Your task to perform on an android device: Search for hotels in Zurich Image 0: 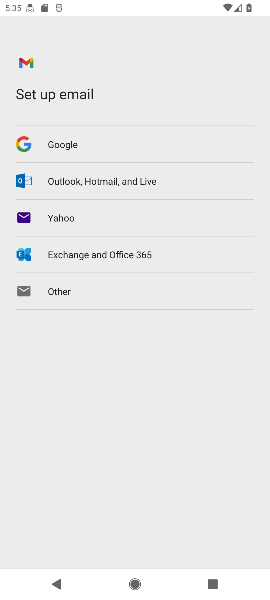
Step 0: press home button
Your task to perform on an android device: Search for hotels in Zurich Image 1: 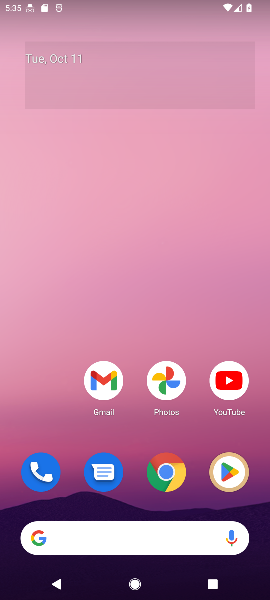
Step 1: click (158, 476)
Your task to perform on an android device: Search for hotels in Zurich Image 2: 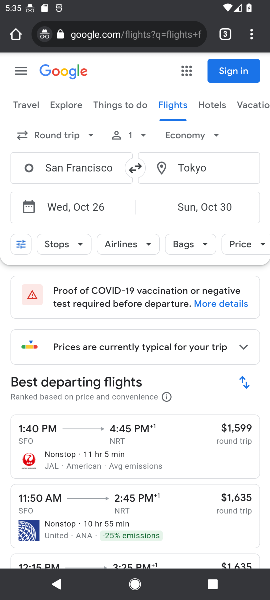
Step 2: click (103, 32)
Your task to perform on an android device: Search for hotels in Zurich Image 3: 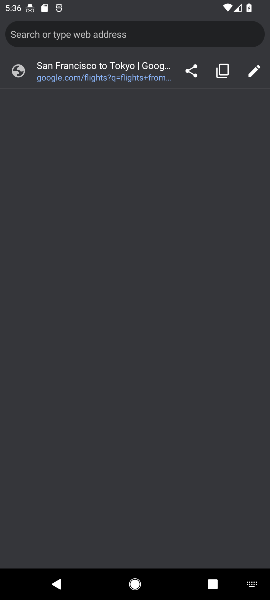
Step 3: type " hotels in Zurich"
Your task to perform on an android device: Search for hotels in Zurich Image 4: 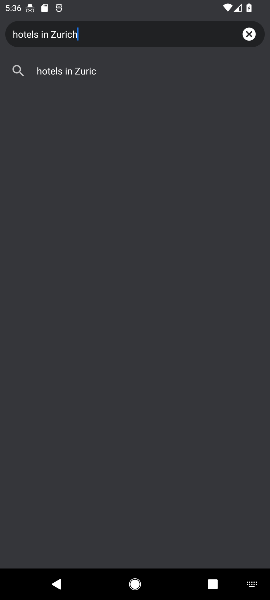
Step 4: type ""
Your task to perform on an android device: Search for hotels in Zurich Image 5: 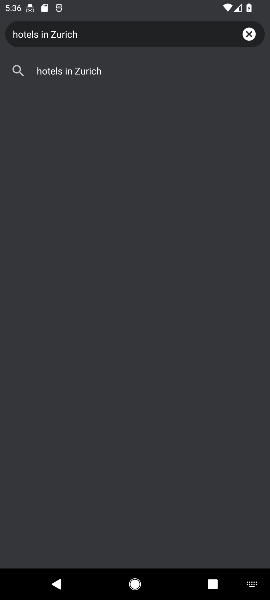
Step 5: click (58, 70)
Your task to perform on an android device: Search for hotels in Zurich Image 6: 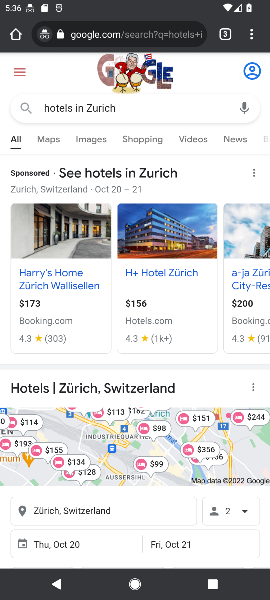
Step 6: task complete